Your task to perform on an android device: uninstall "Venmo" Image 0: 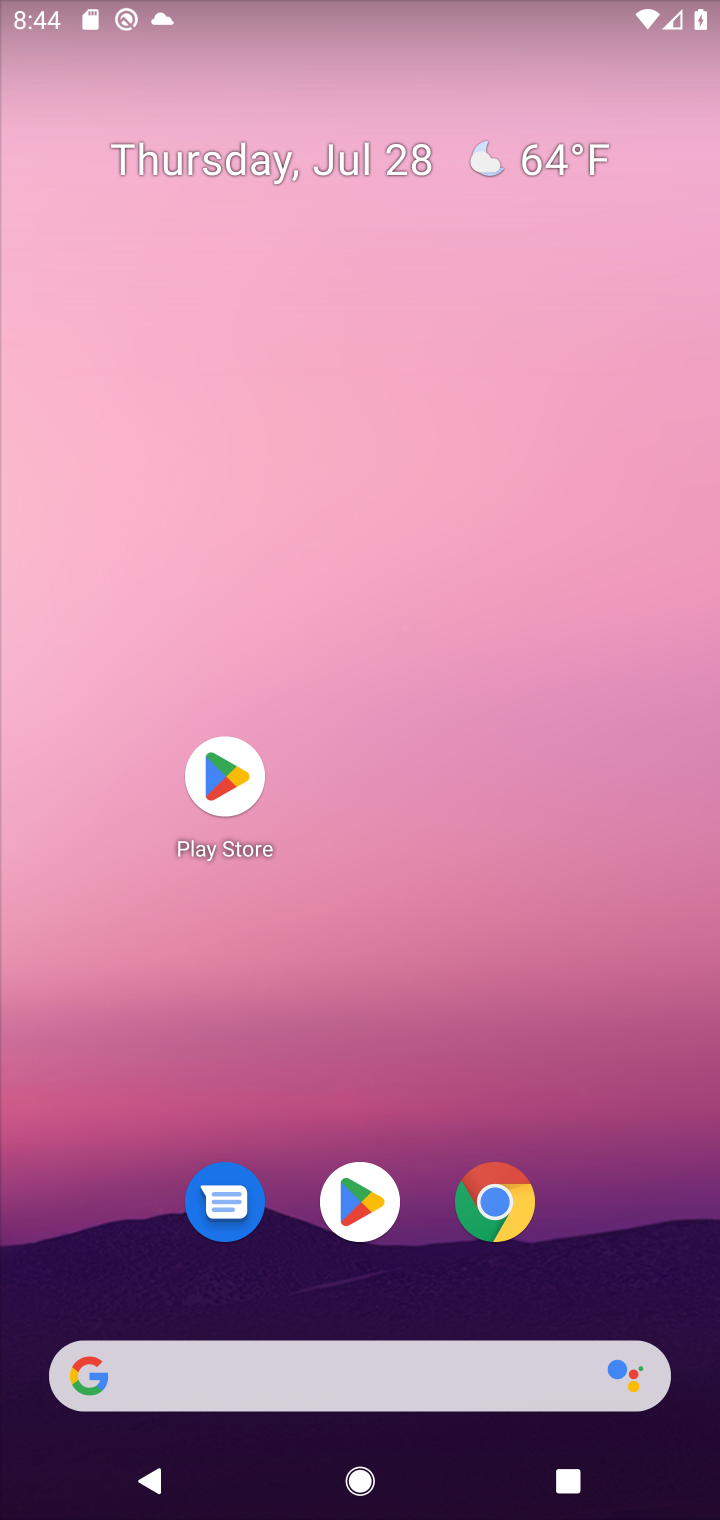
Step 0: click (357, 1225)
Your task to perform on an android device: uninstall "Venmo" Image 1: 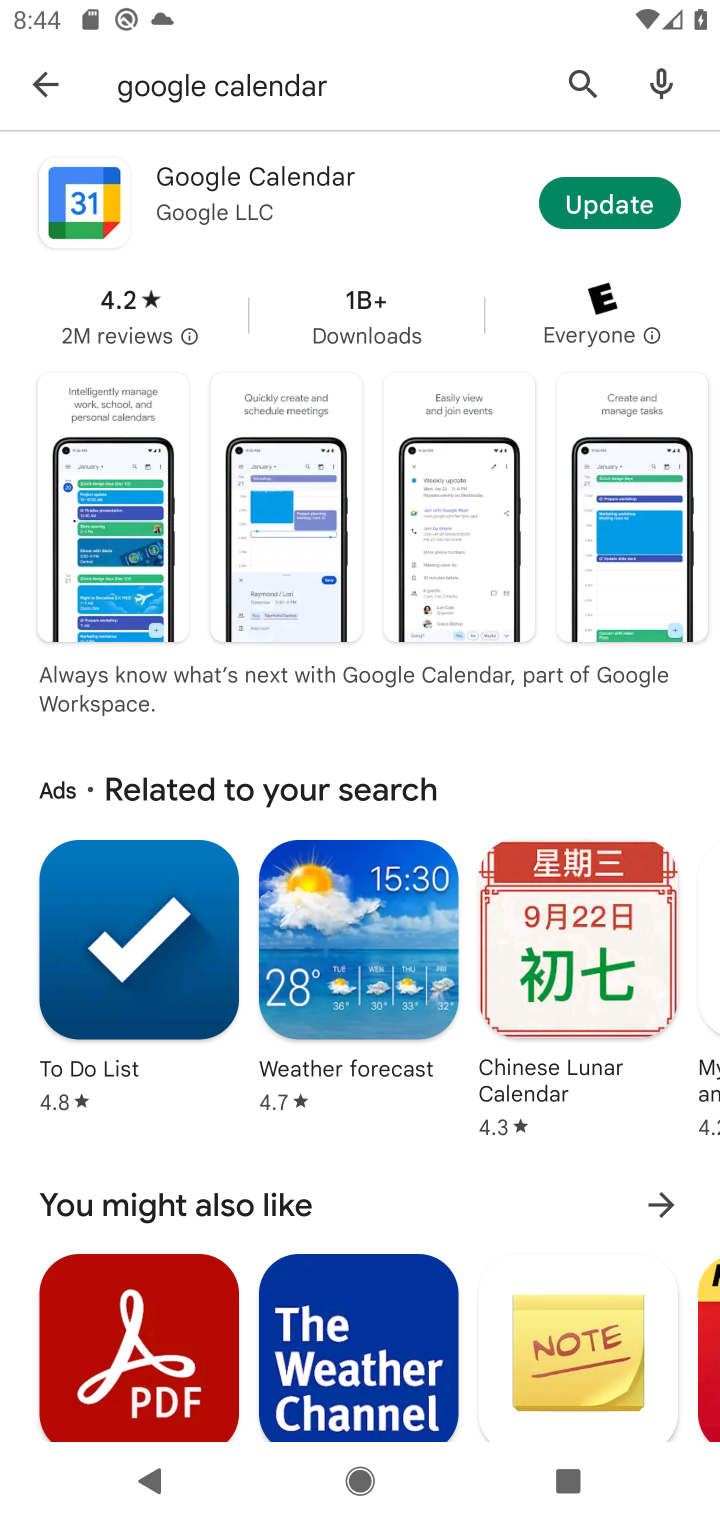
Step 1: click (585, 68)
Your task to perform on an android device: uninstall "Venmo" Image 2: 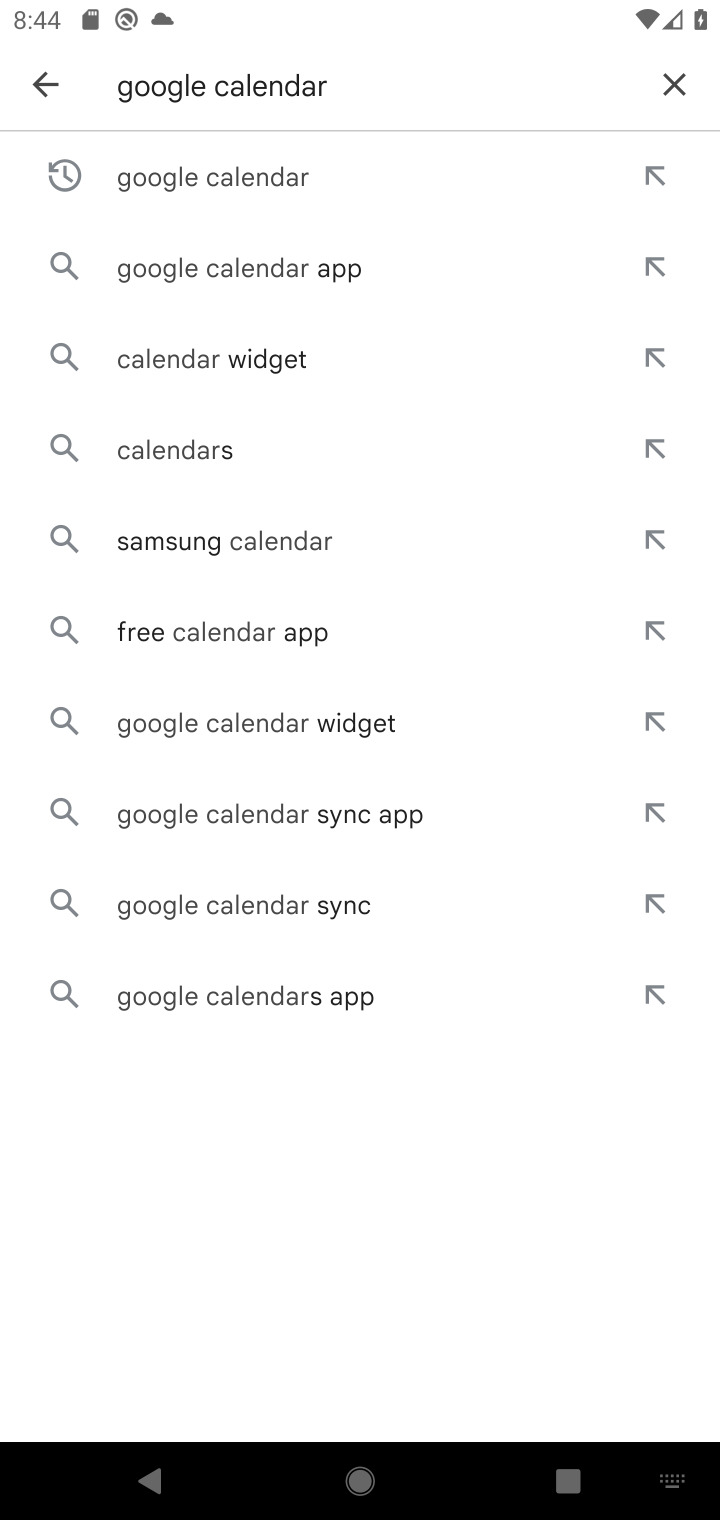
Step 2: click (687, 87)
Your task to perform on an android device: uninstall "Venmo" Image 3: 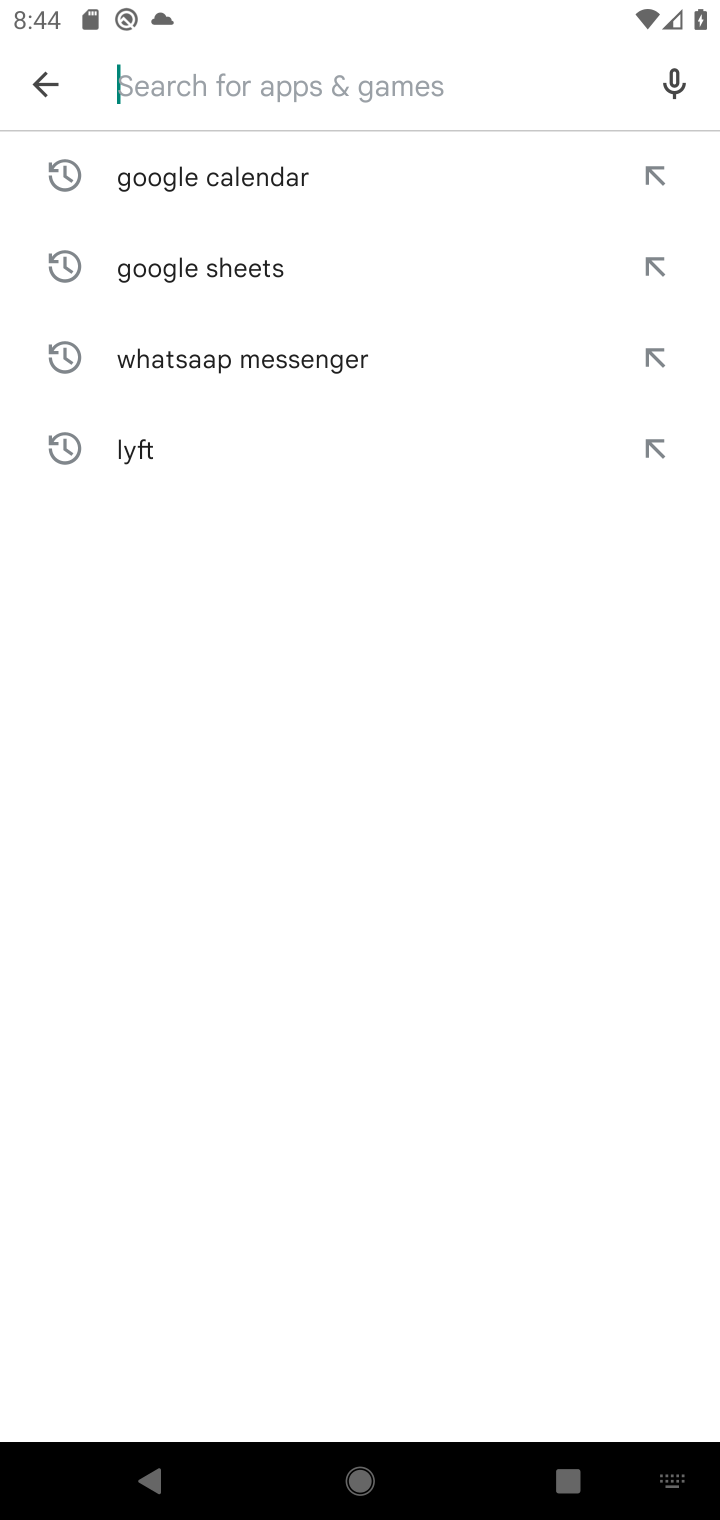
Step 3: click (346, 68)
Your task to perform on an android device: uninstall "Venmo" Image 4: 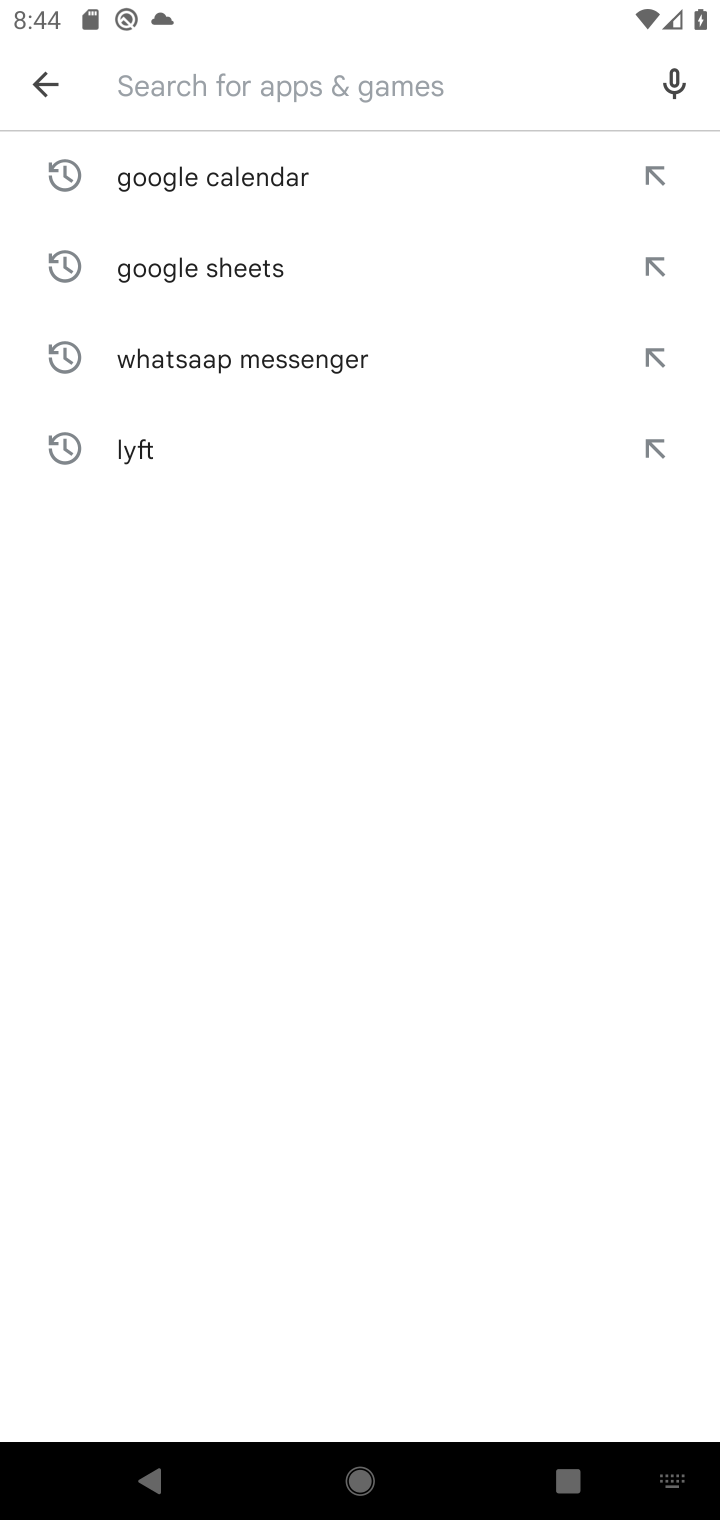
Step 4: type "venmo"
Your task to perform on an android device: uninstall "Venmo" Image 5: 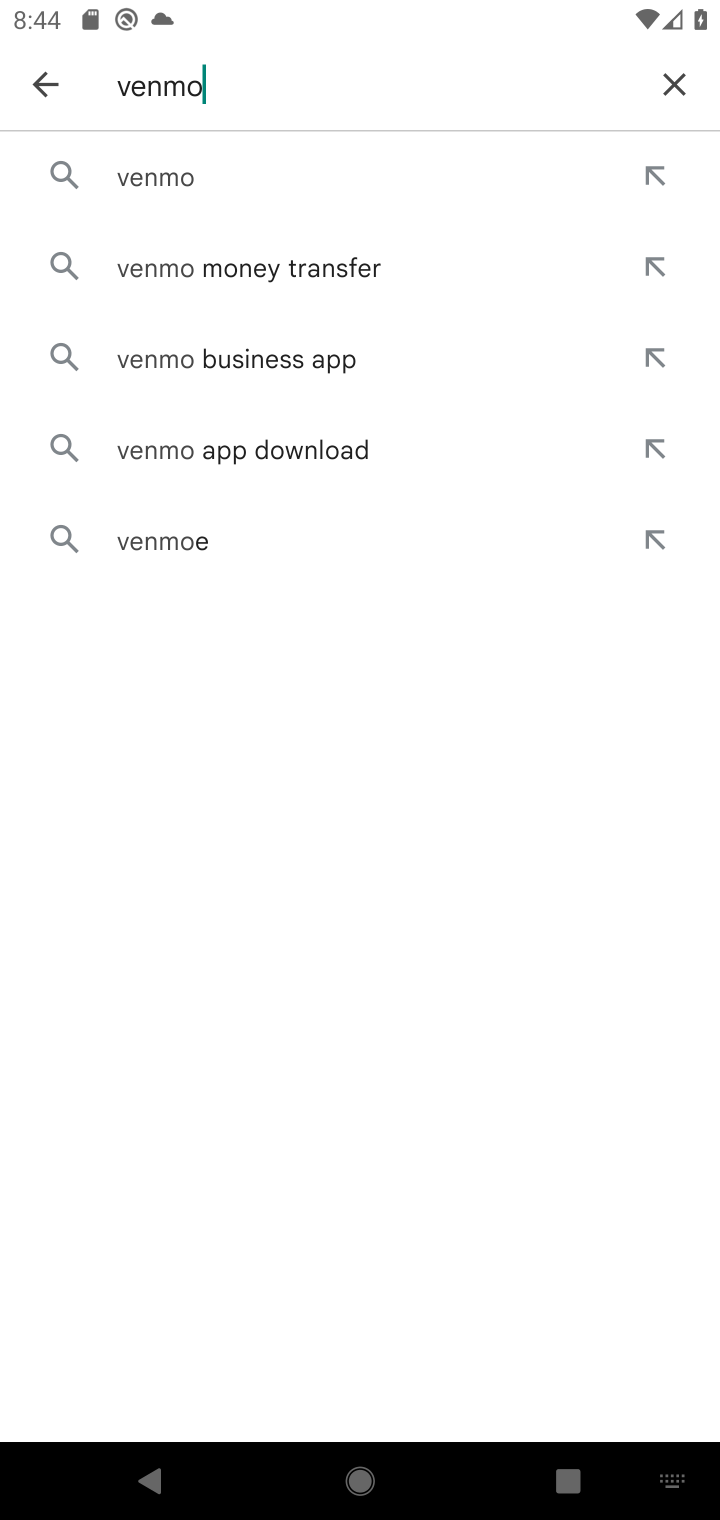
Step 5: click (172, 171)
Your task to perform on an android device: uninstall "Venmo" Image 6: 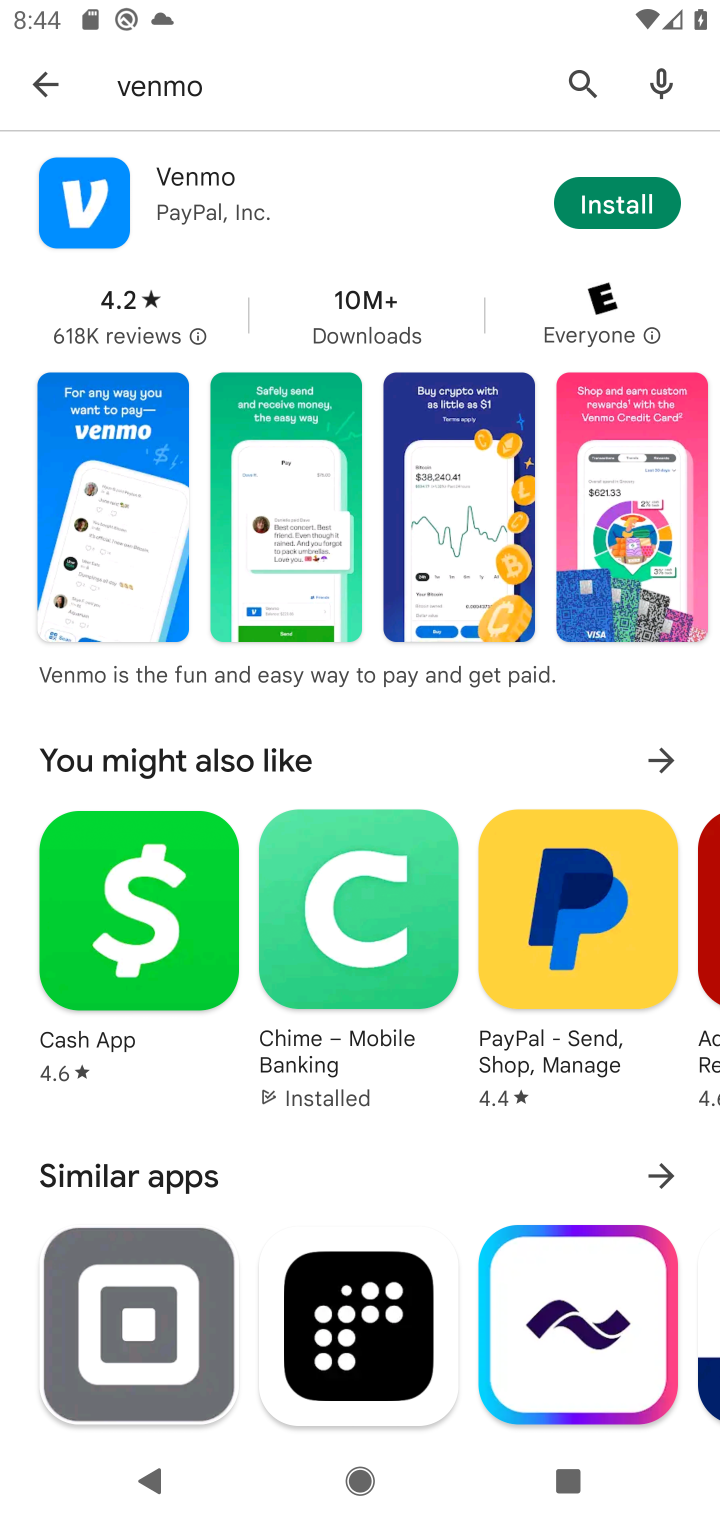
Step 6: task complete